Your task to perform on an android device: What's the weather going to be tomorrow? Image 0: 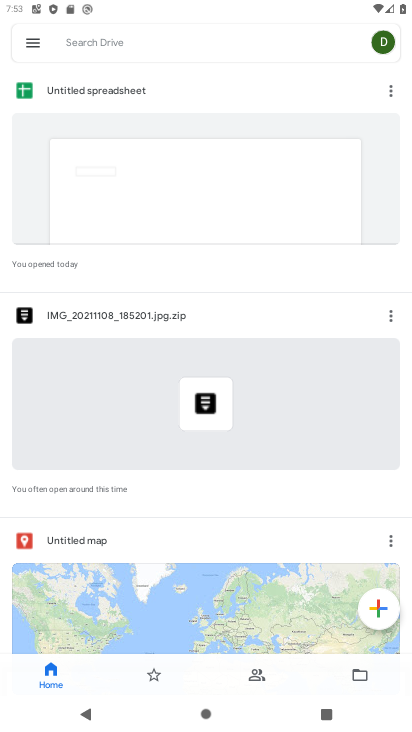
Step 0: press home button
Your task to perform on an android device: What's the weather going to be tomorrow? Image 1: 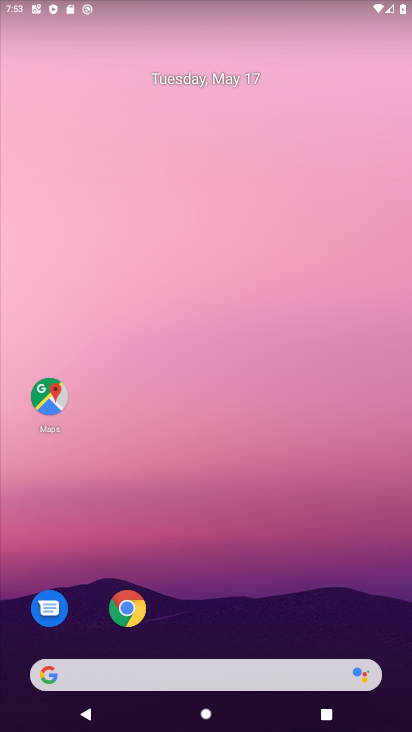
Step 1: click (218, 681)
Your task to perform on an android device: What's the weather going to be tomorrow? Image 2: 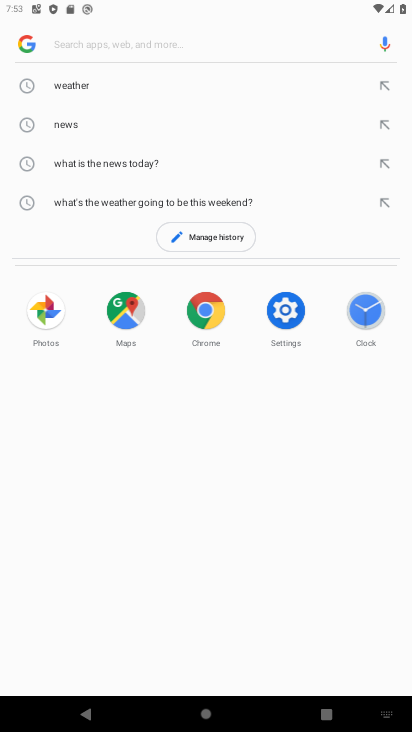
Step 2: click (77, 84)
Your task to perform on an android device: What's the weather going to be tomorrow? Image 3: 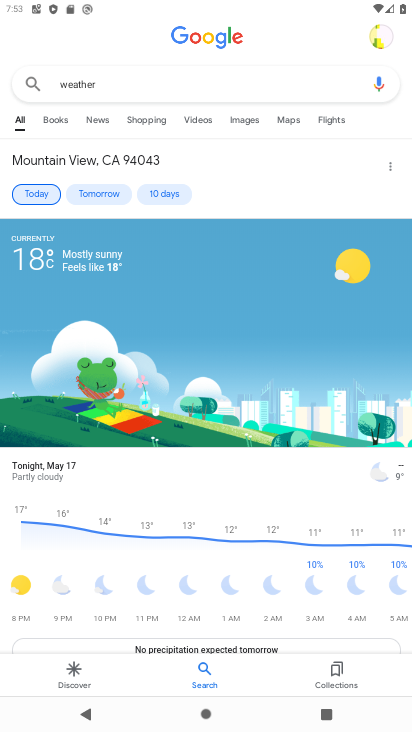
Step 3: click (101, 196)
Your task to perform on an android device: What's the weather going to be tomorrow? Image 4: 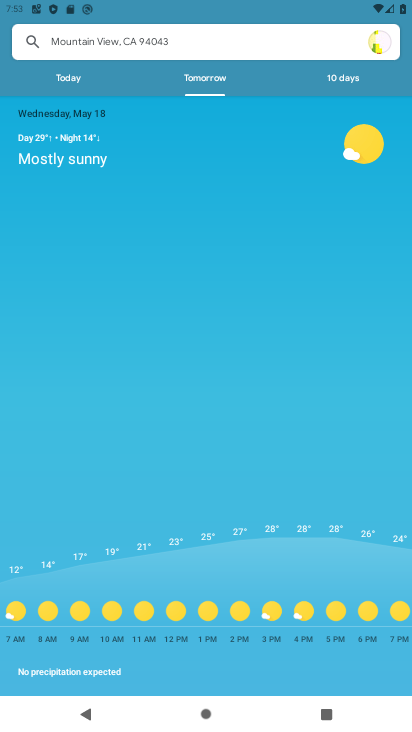
Step 4: task complete